Your task to perform on an android device: When is my next appointment? Image 0: 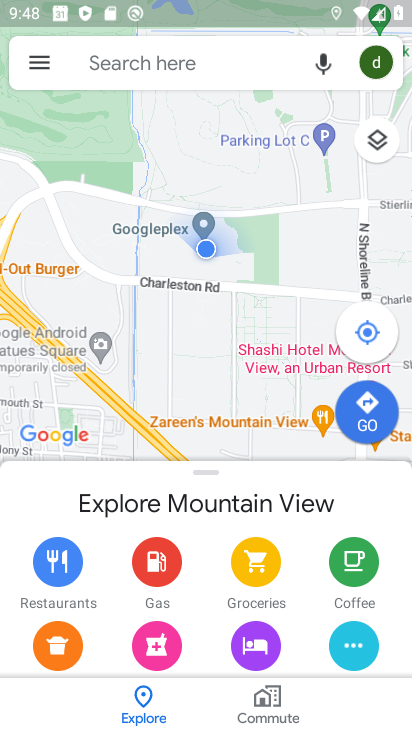
Step 0: press home button
Your task to perform on an android device: When is my next appointment? Image 1: 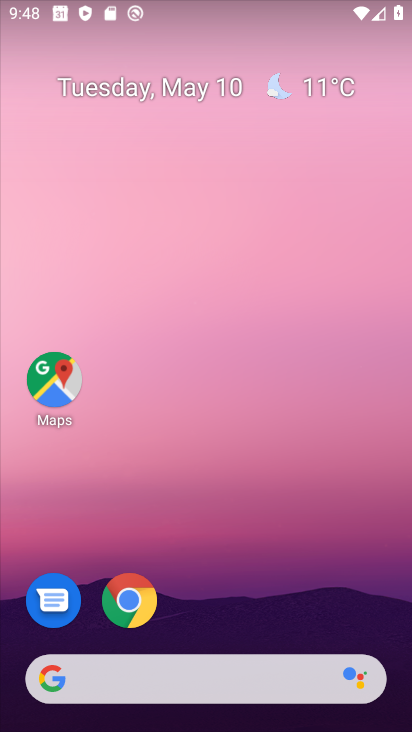
Step 1: drag from (327, 597) to (393, 127)
Your task to perform on an android device: When is my next appointment? Image 2: 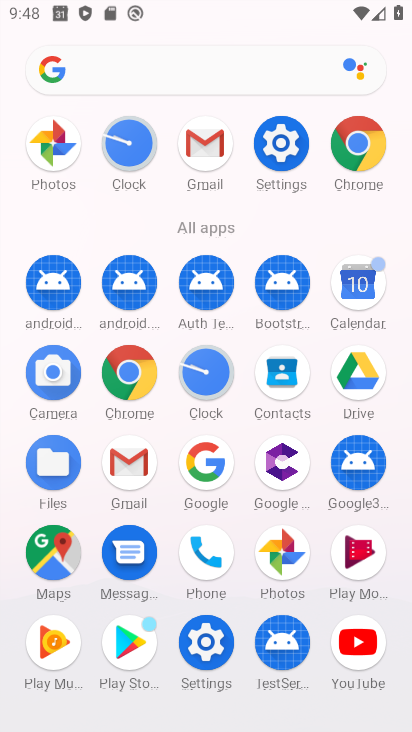
Step 2: click (356, 274)
Your task to perform on an android device: When is my next appointment? Image 3: 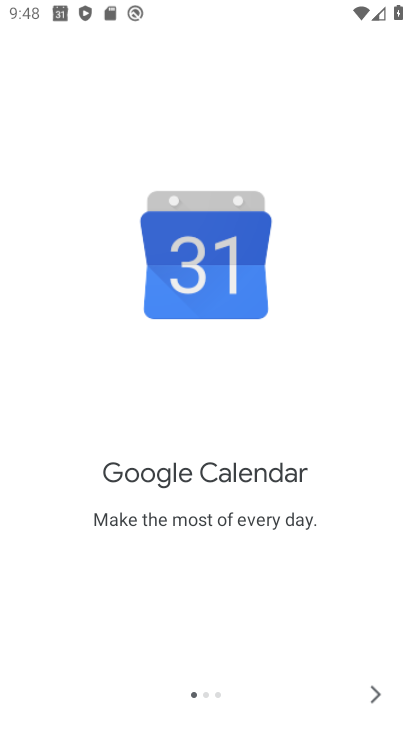
Step 3: click (382, 669)
Your task to perform on an android device: When is my next appointment? Image 4: 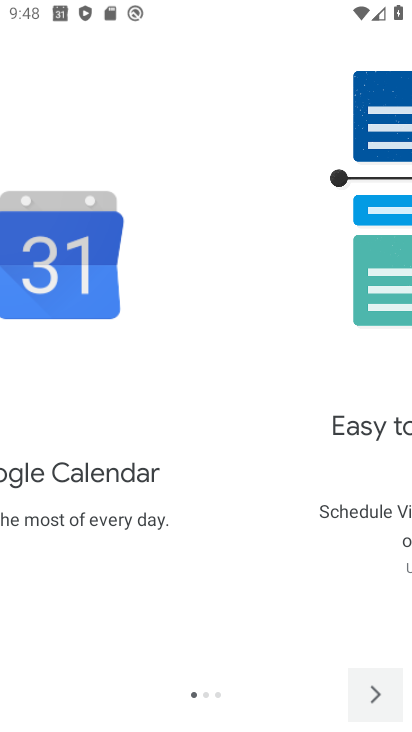
Step 4: click (372, 682)
Your task to perform on an android device: When is my next appointment? Image 5: 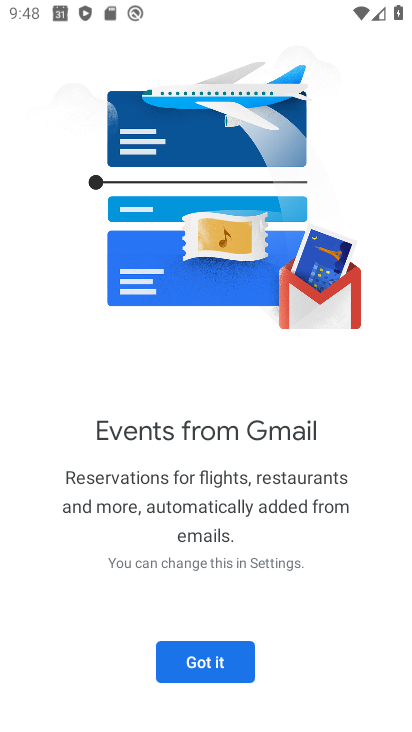
Step 5: click (367, 690)
Your task to perform on an android device: When is my next appointment? Image 6: 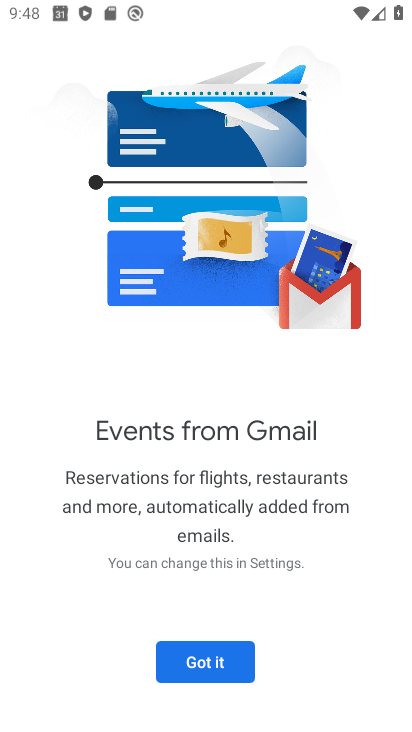
Step 6: click (220, 652)
Your task to perform on an android device: When is my next appointment? Image 7: 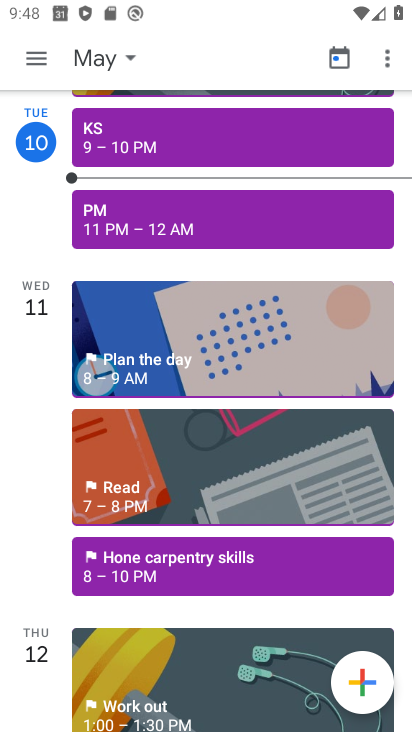
Step 7: click (97, 52)
Your task to perform on an android device: When is my next appointment? Image 8: 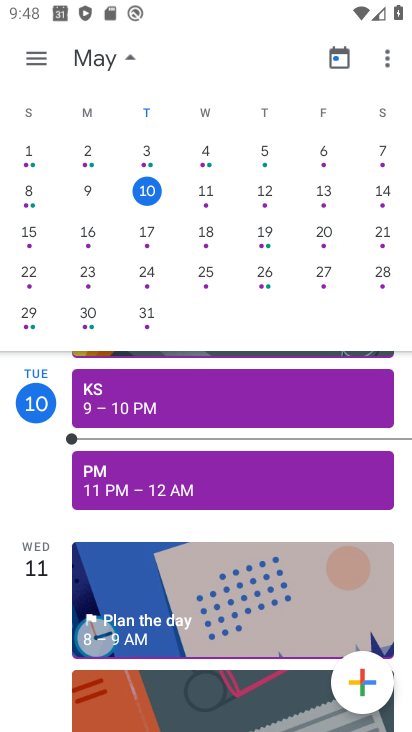
Step 8: task complete